Your task to perform on an android device: Open Yahoo.com Image 0: 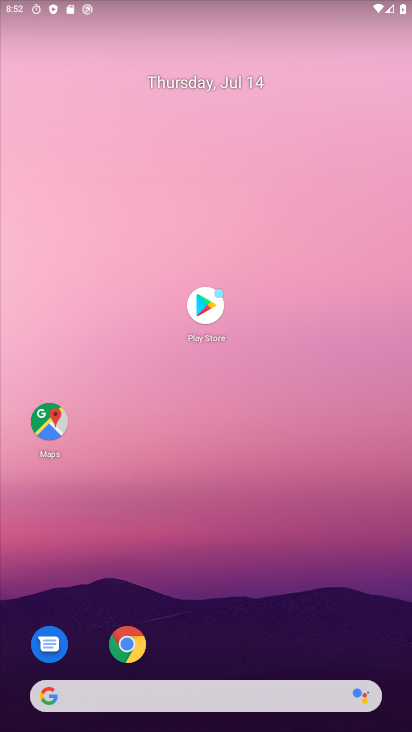
Step 0: drag from (178, 635) to (216, 174)
Your task to perform on an android device: Open Yahoo.com Image 1: 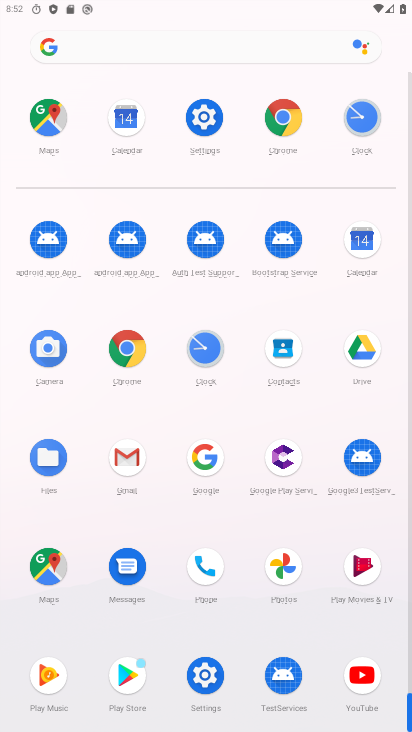
Step 1: click (227, 51)
Your task to perform on an android device: Open Yahoo.com Image 2: 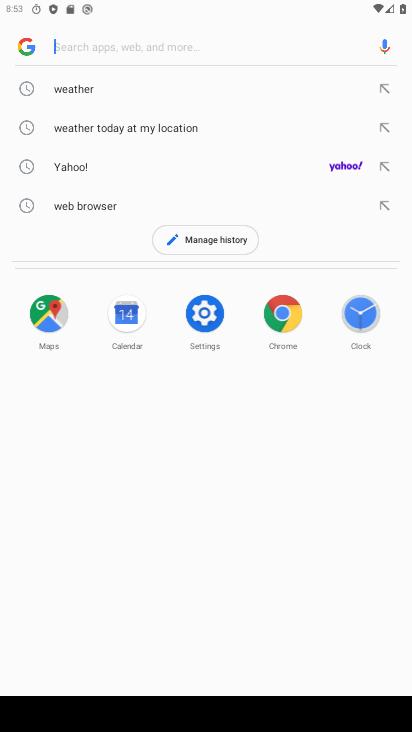
Step 2: click (137, 171)
Your task to perform on an android device: Open Yahoo.com Image 3: 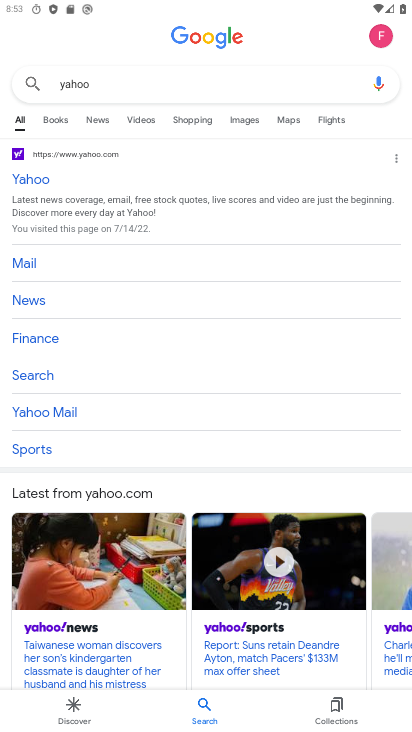
Step 3: click (23, 170)
Your task to perform on an android device: Open Yahoo.com Image 4: 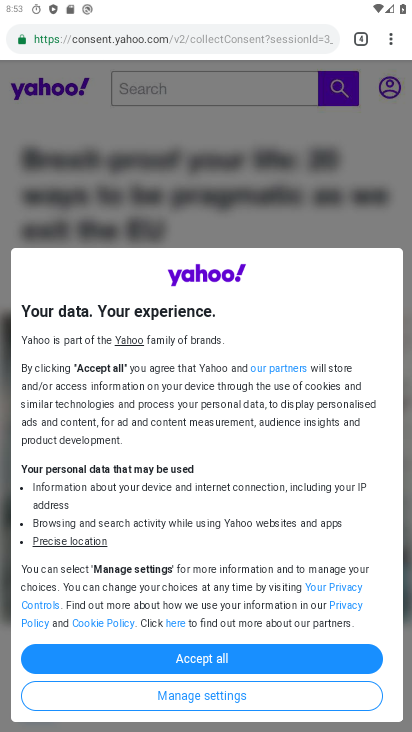
Step 4: task complete